Your task to perform on an android device: turn on sleep mode Image 0: 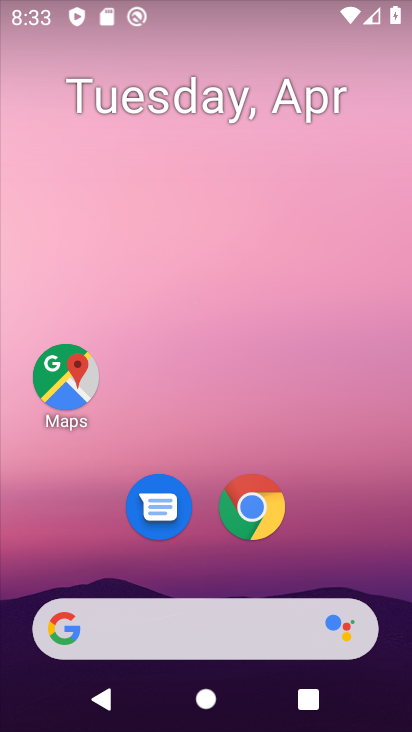
Step 0: drag from (197, 580) to (204, 290)
Your task to perform on an android device: turn on sleep mode Image 1: 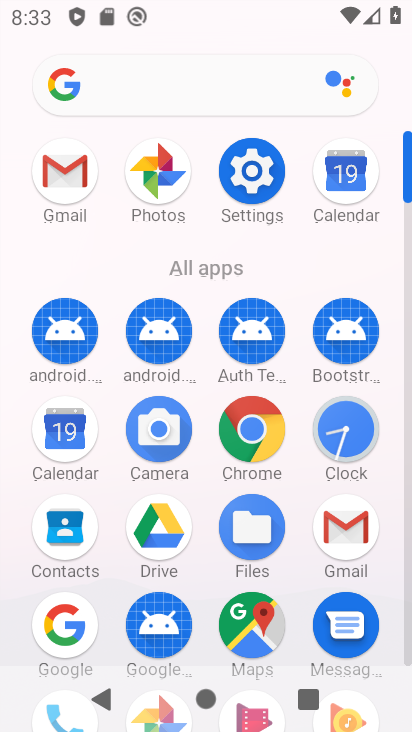
Step 1: click (232, 191)
Your task to perform on an android device: turn on sleep mode Image 2: 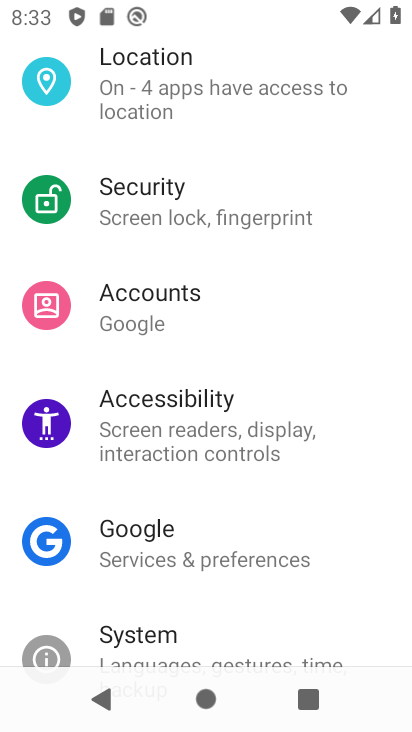
Step 2: drag from (220, 196) to (208, 518)
Your task to perform on an android device: turn on sleep mode Image 3: 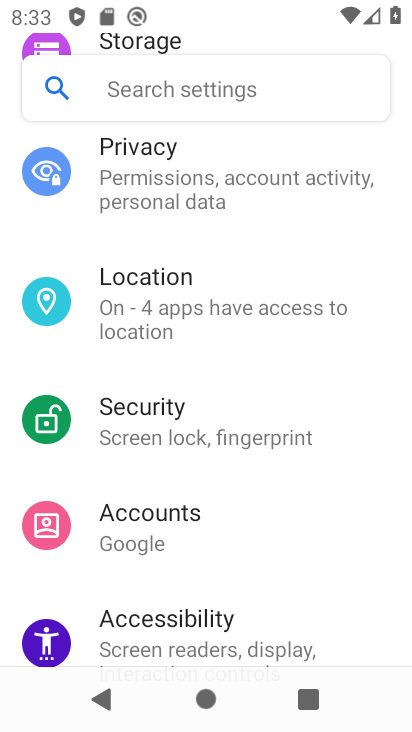
Step 3: drag from (169, 350) to (160, 585)
Your task to perform on an android device: turn on sleep mode Image 4: 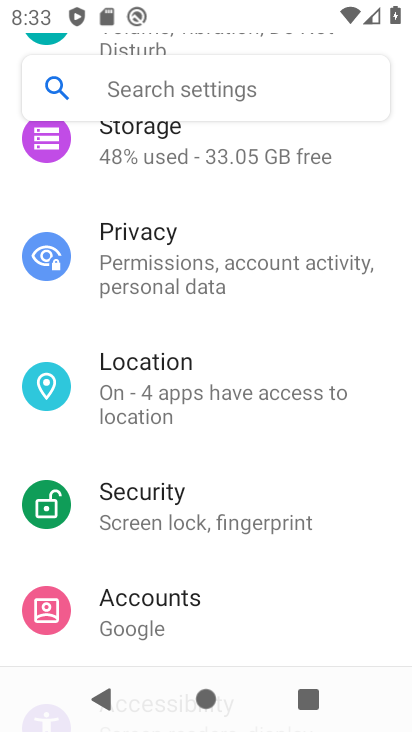
Step 4: drag from (178, 258) to (196, 580)
Your task to perform on an android device: turn on sleep mode Image 5: 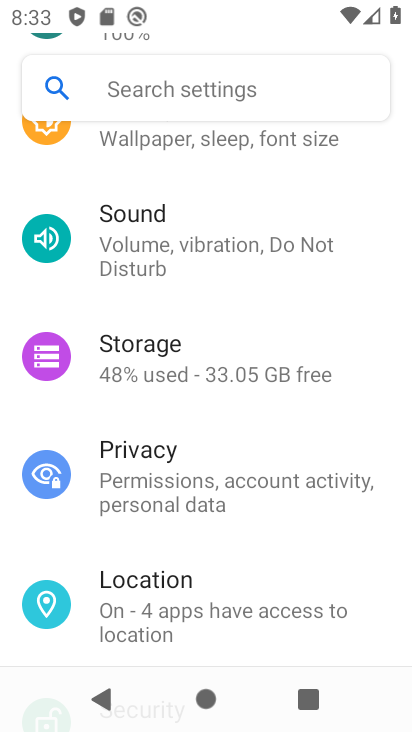
Step 5: drag from (211, 378) to (211, 593)
Your task to perform on an android device: turn on sleep mode Image 6: 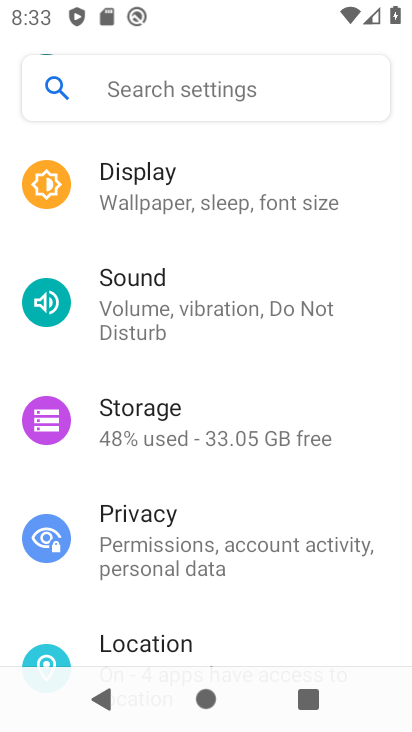
Step 6: click (161, 198)
Your task to perform on an android device: turn on sleep mode Image 7: 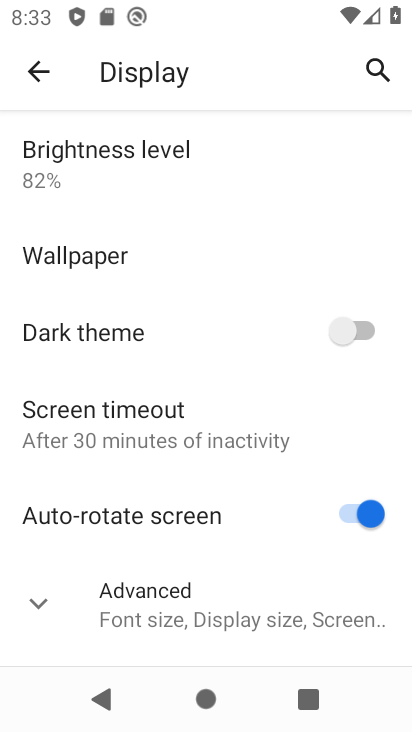
Step 7: click (142, 407)
Your task to perform on an android device: turn on sleep mode Image 8: 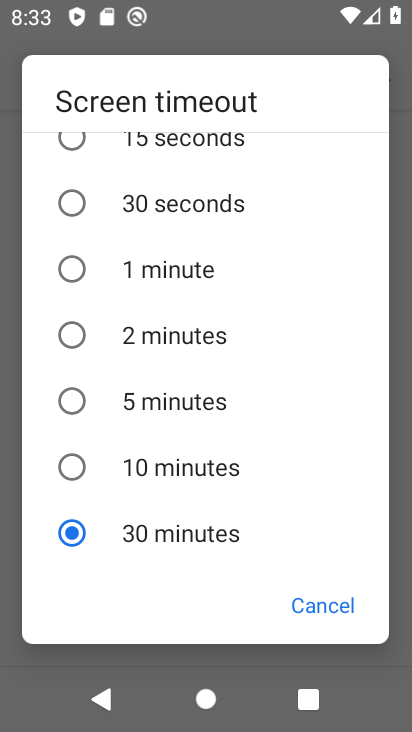
Step 8: click (164, 354)
Your task to perform on an android device: turn on sleep mode Image 9: 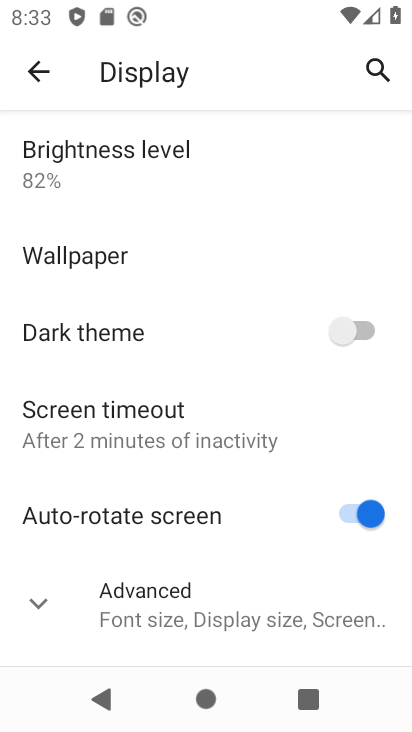
Step 9: task complete